Your task to perform on an android device: open chrome privacy settings Image 0: 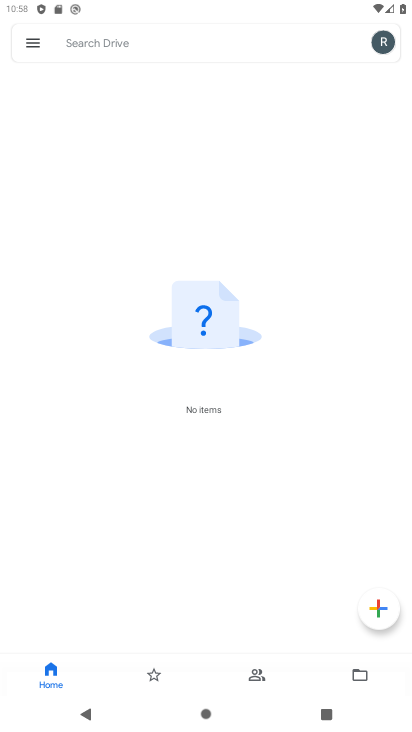
Step 0: press home button
Your task to perform on an android device: open chrome privacy settings Image 1: 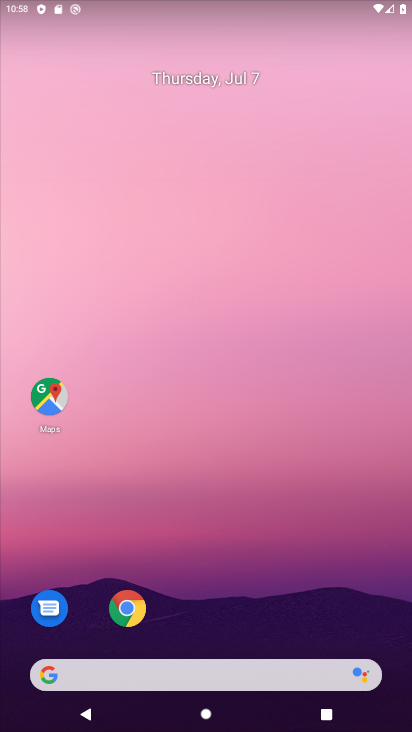
Step 1: drag from (77, 599) to (319, 167)
Your task to perform on an android device: open chrome privacy settings Image 2: 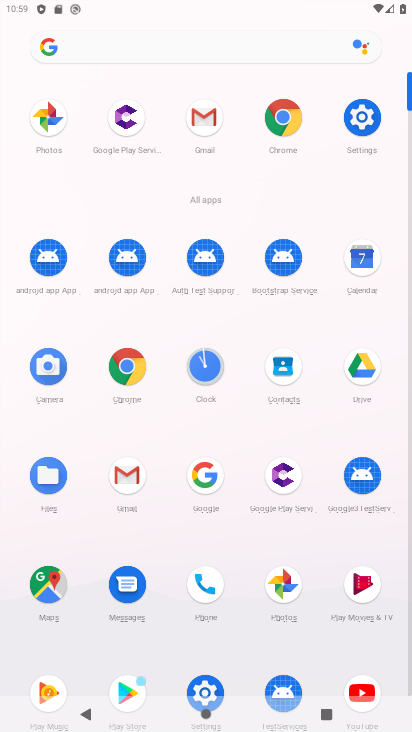
Step 2: click (361, 131)
Your task to perform on an android device: open chrome privacy settings Image 3: 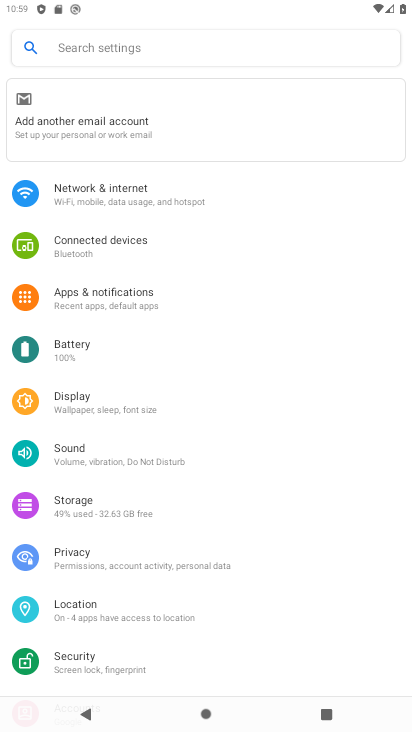
Step 3: click (128, 547)
Your task to perform on an android device: open chrome privacy settings Image 4: 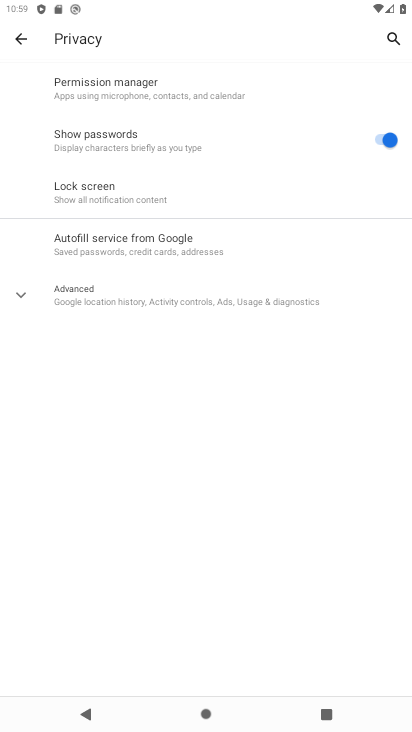
Step 4: task complete